Your task to perform on an android device: toggle show notifications on the lock screen Image 0: 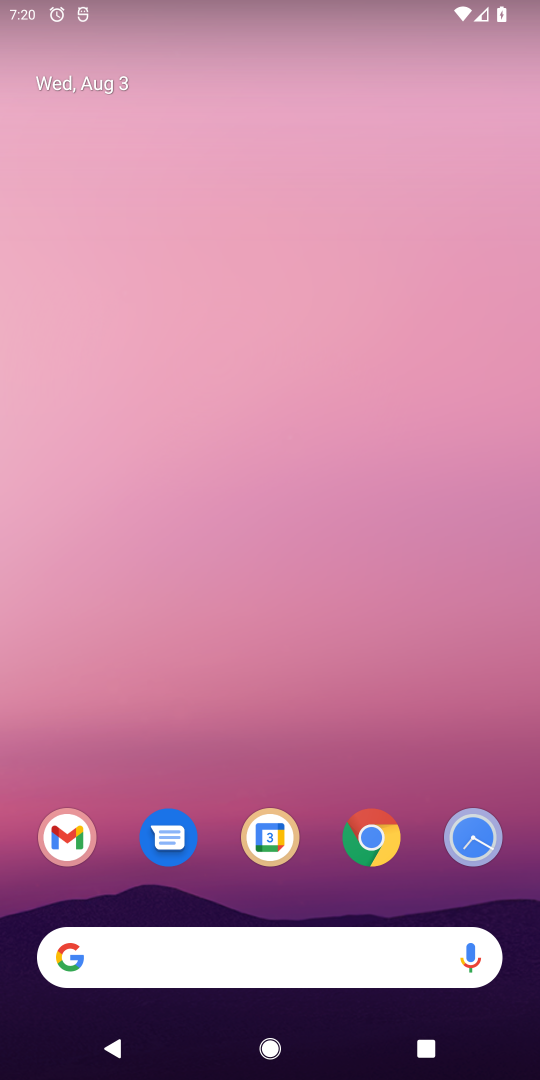
Step 0: press home button
Your task to perform on an android device: toggle show notifications on the lock screen Image 1: 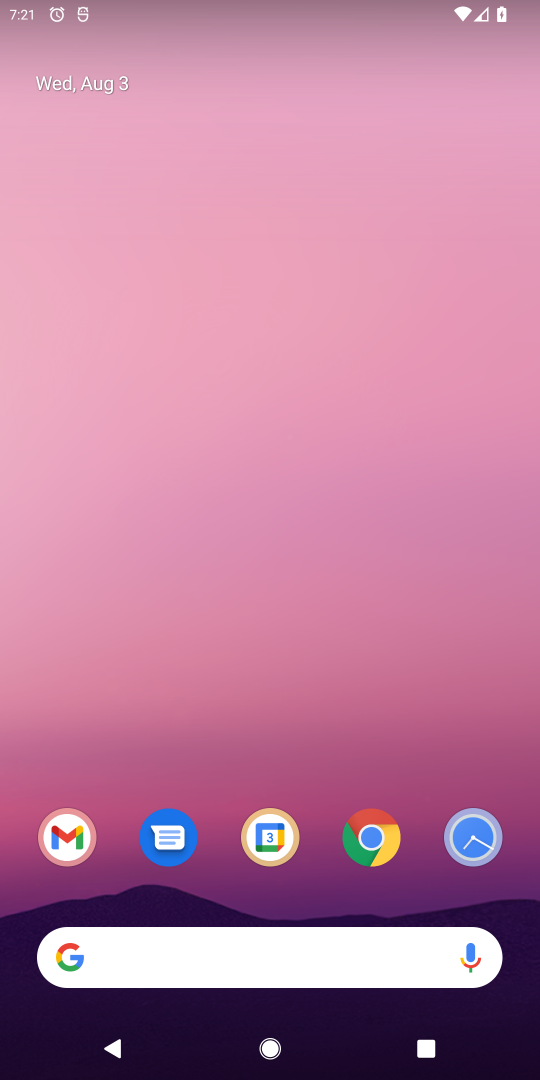
Step 1: drag from (316, 709) to (302, 133)
Your task to perform on an android device: toggle show notifications on the lock screen Image 2: 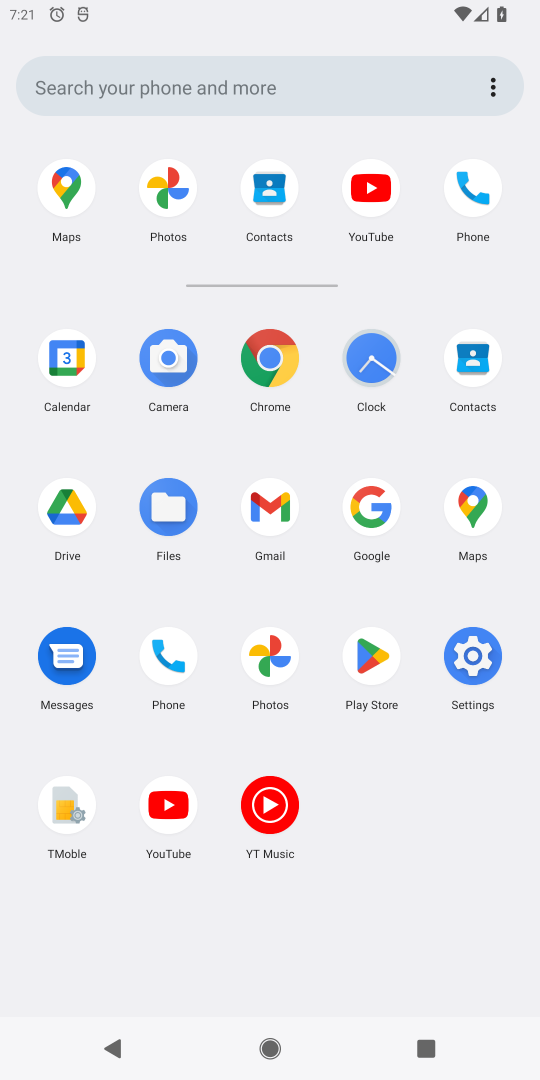
Step 2: click (471, 644)
Your task to perform on an android device: toggle show notifications on the lock screen Image 3: 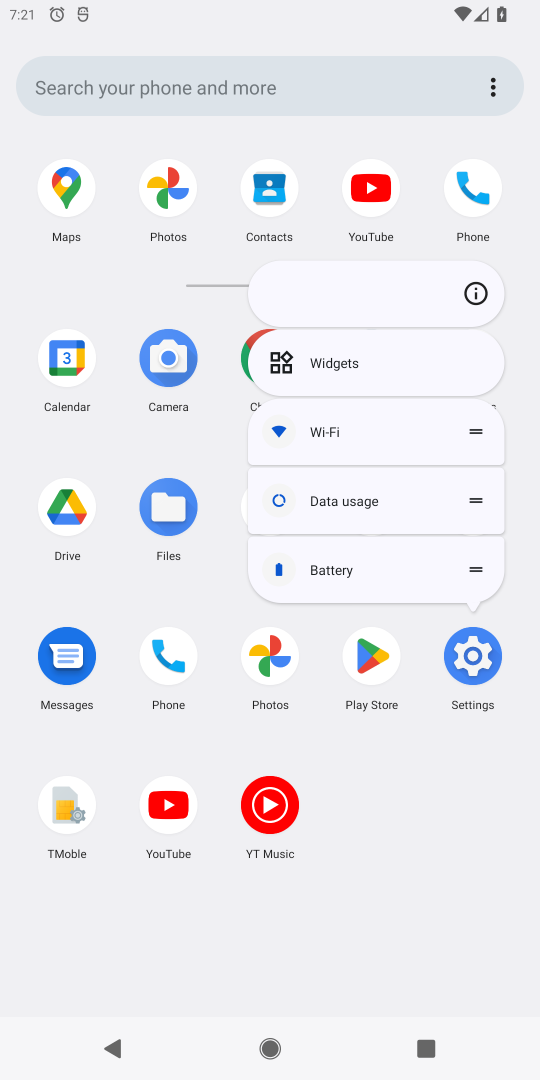
Step 3: click (471, 644)
Your task to perform on an android device: toggle show notifications on the lock screen Image 4: 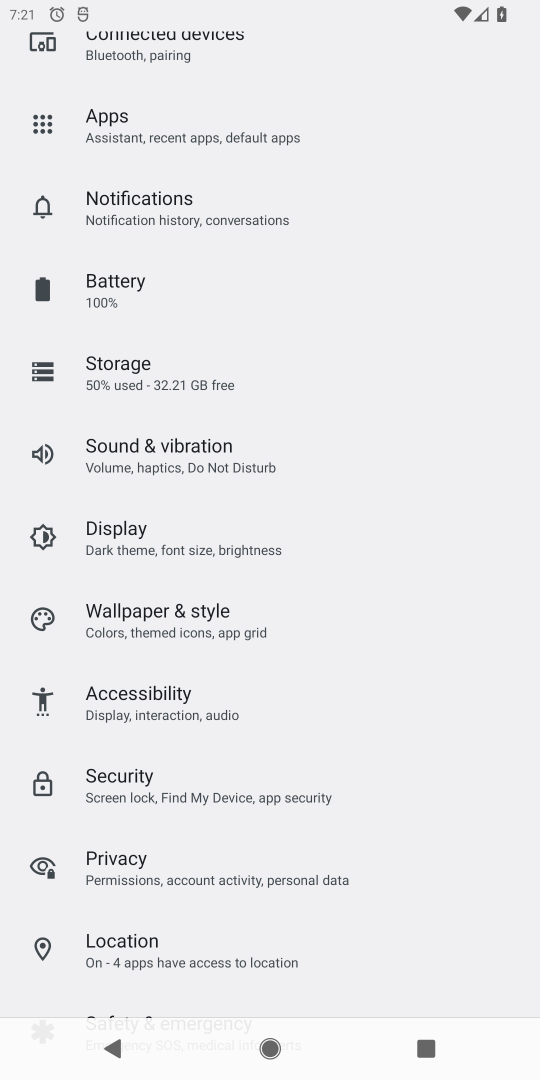
Step 4: click (170, 210)
Your task to perform on an android device: toggle show notifications on the lock screen Image 5: 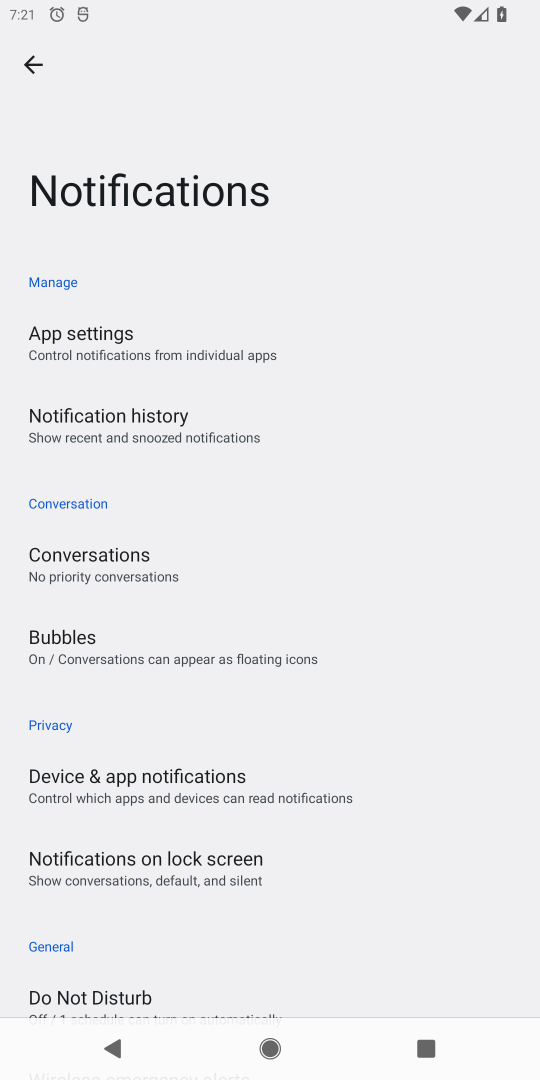
Step 5: click (126, 875)
Your task to perform on an android device: toggle show notifications on the lock screen Image 6: 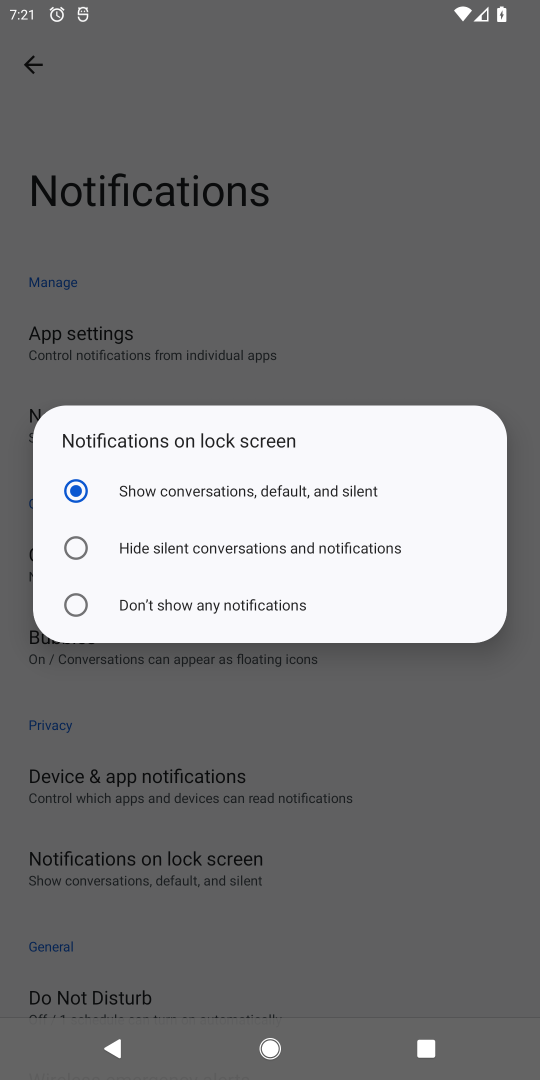
Step 6: click (69, 548)
Your task to perform on an android device: toggle show notifications on the lock screen Image 7: 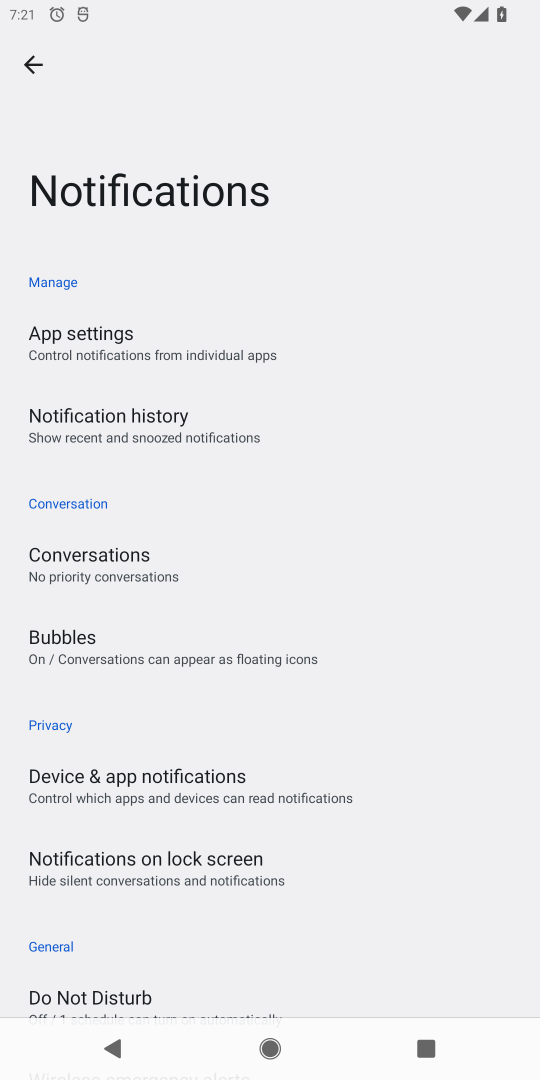
Step 7: task complete